Your task to perform on an android device: set an alarm Image 0: 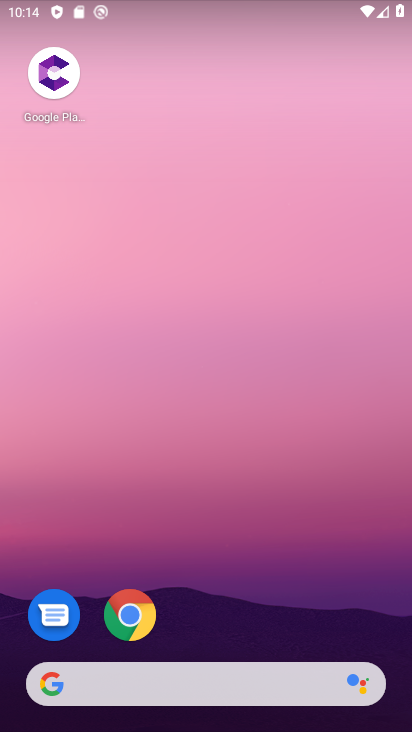
Step 0: drag from (168, 666) to (316, 78)
Your task to perform on an android device: set an alarm Image 1: 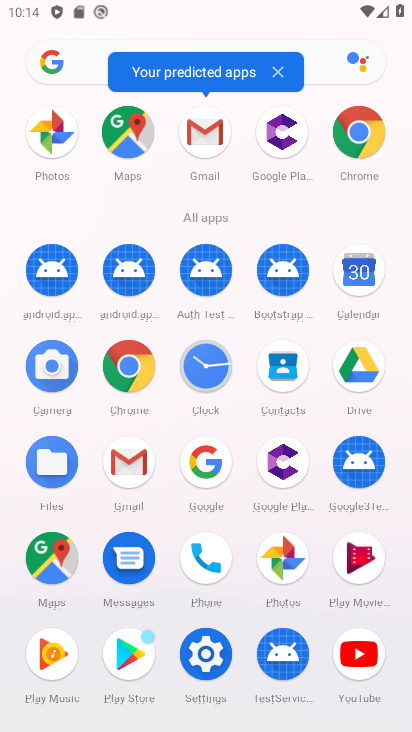
Step 1: click (182, 378)
Your task to perform on an android device: set an alarm Image 2: 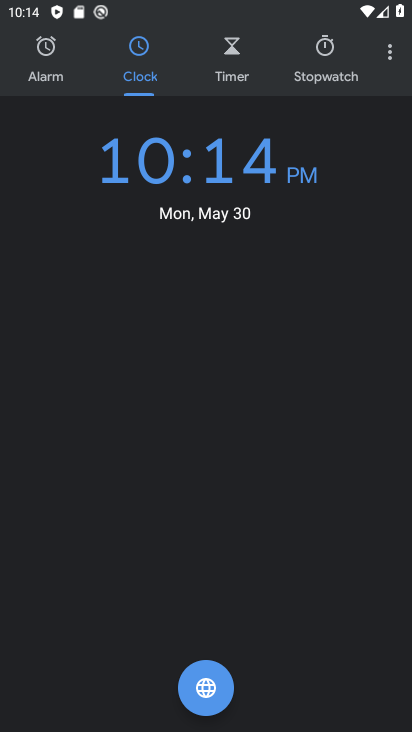
Step 2: click (41, 72)
Your task to perform on an android device: set an alarm Image 3: 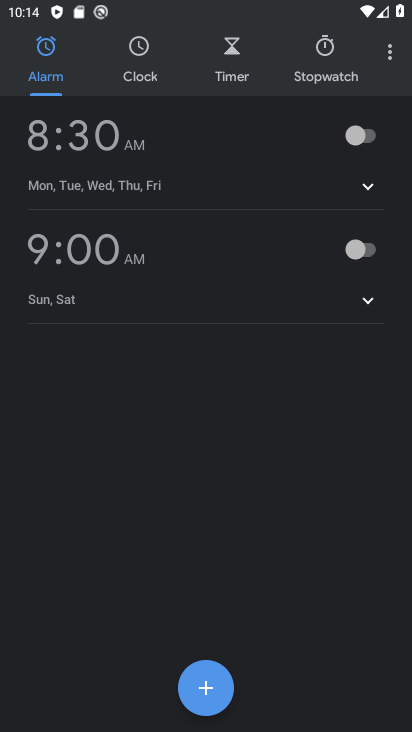
Step 3: click (383, 123)
Your task to perform on an android device: set an alarm Image 4: 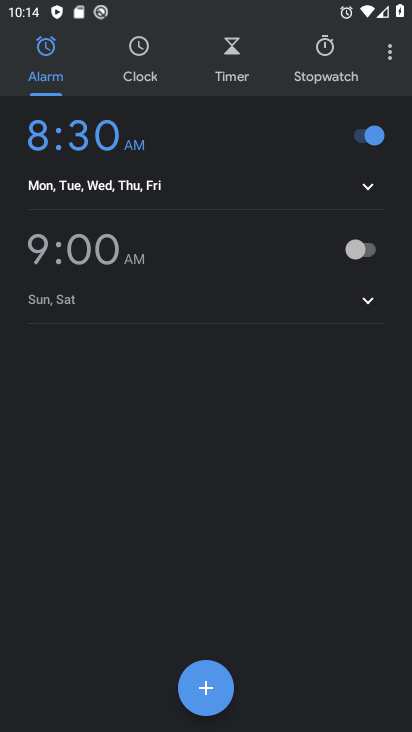
Step 4: click (377, 250)
Your task to perform on an android device: set an alarm Image 5: 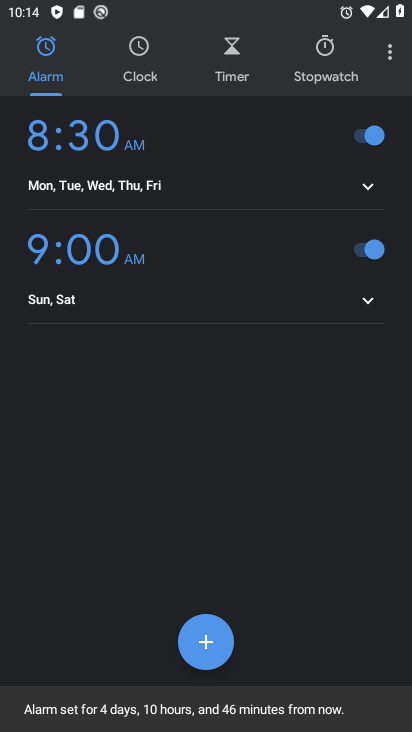
Step 5: task complete